Your task to perform on an android device: Search for pizza restaurants on Maps Image 0: 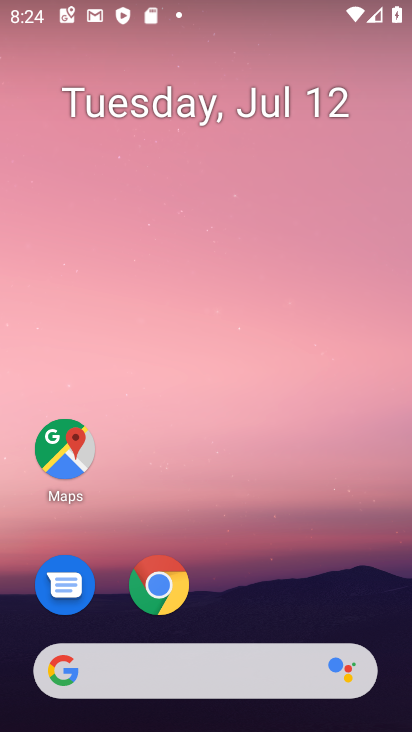
Step 0: click (66, 453)
Your task to perform on an android device: Search for pizza restaurants on Maps Image 1: 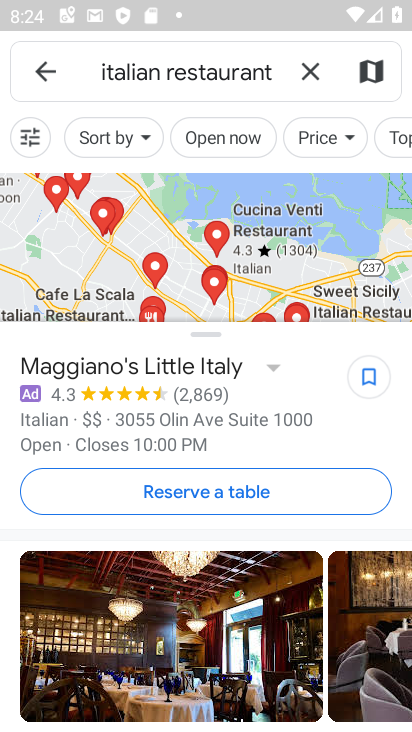
Step 1: click (309, 64)
Your task to perform on an android device: Search for pizza restaurants on Maps Image 2: 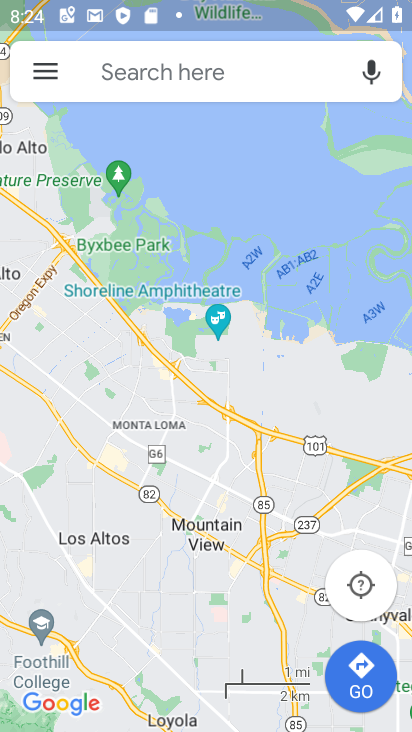
Step 2: click (240, 64)
Your task to perform on an android device: Search for pizza restaurants on Maps Image 3: 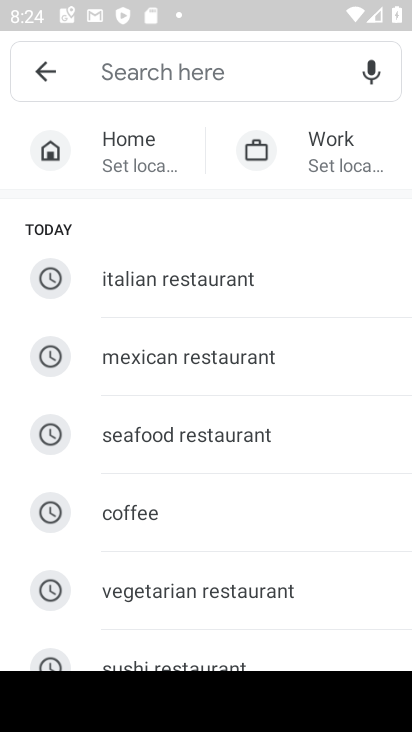
Step 3: drag from (193, 518) to (208, 285)
Your task to perform on an android device: Search for pizza restaurants on Maps Image 4: 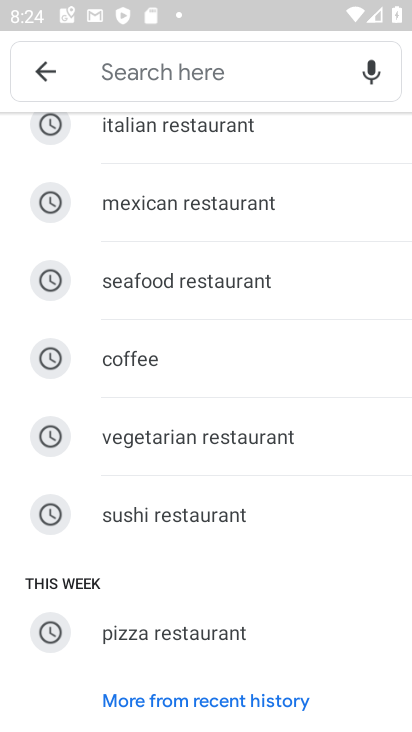
Step 4: click (207, 629)
Your task to perform on an android device: Search for pizza restaurants on Maps Image 5: 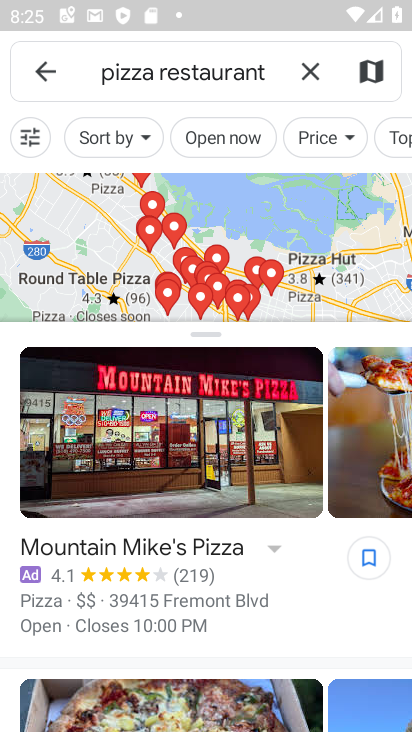
Step 5: task complete